Your task to perform on an android device: Check the news Image 0: 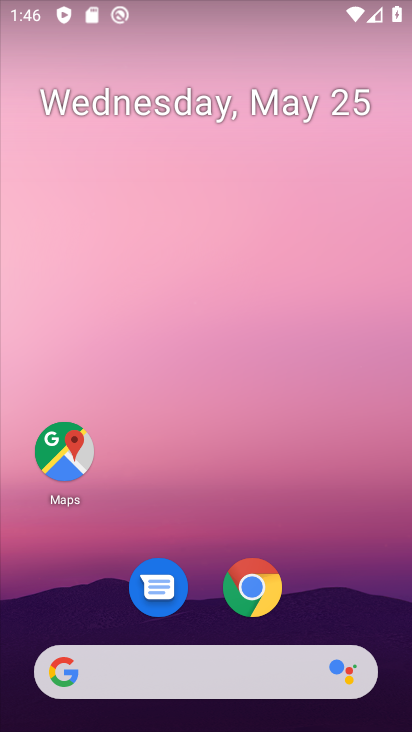
Step 0: drag from (6, 277) to (404, 258)
Your task to perform on an android device: Check the news Image 1: 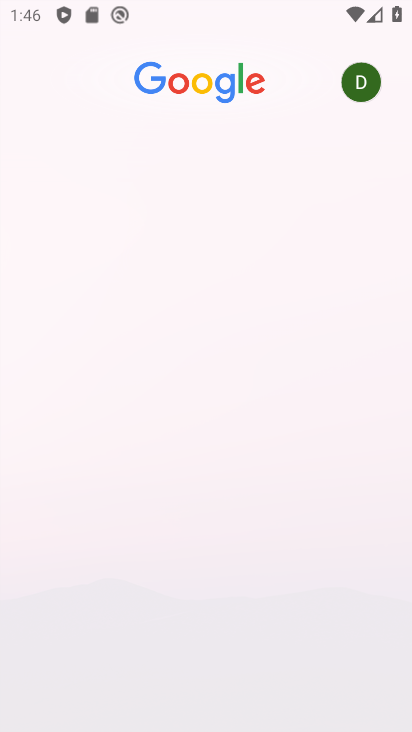
Step 1: task complete